Your task to perform on an android device: see creations saved in the google photos Image 0: 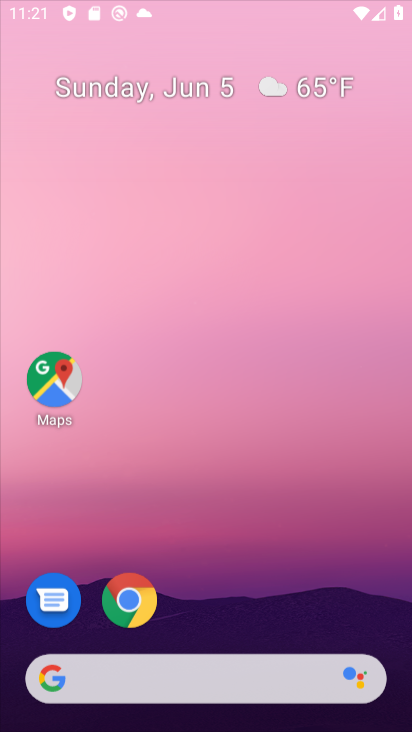
Step 0: click (149, 254)
Your task to perform on an android device: see creations saved in the google photos Image 1: 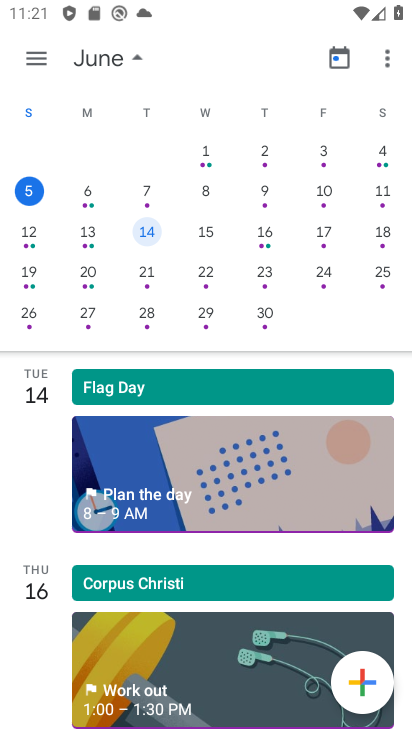
Step 1: press back button
Your task to perform on an android device: see creations saved in the google photos Image 2: 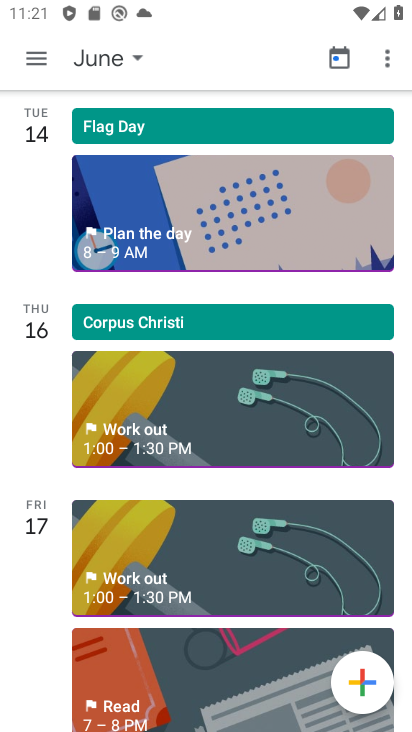
Step 2: press home button
Your task to perform on an android device: see creations saved in the google photos Image 3: 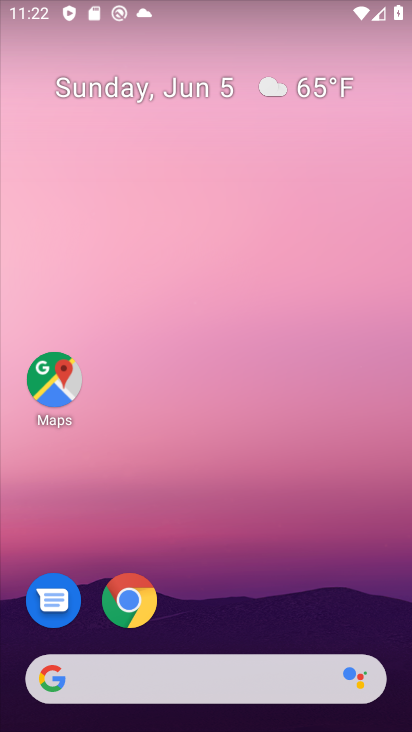
Step 3: drag from (302, 680) to (219, 165)
Your task to perform on an android device: see creations saved in the google photos Image 4: 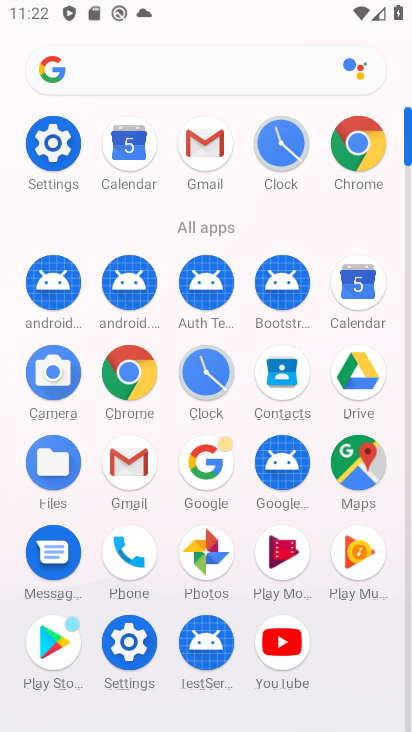
Step 4: click (203, 551)
Your task to perform on an android device: see creations saved in the google photos Image 5: 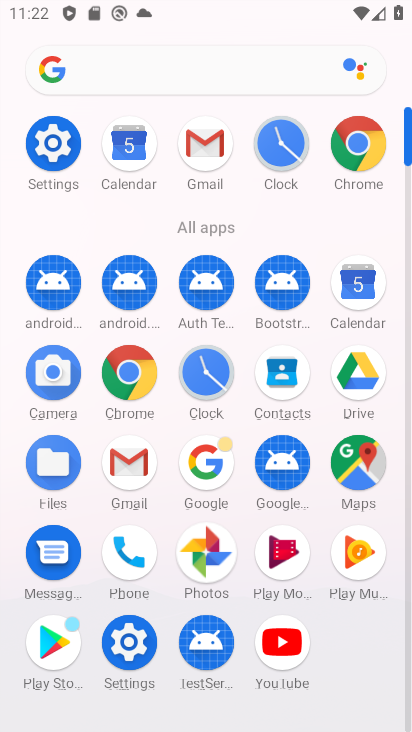
Step 5: click (203, 551)
Your task to perform on an android device: see creations saved in the google photos Image 6: 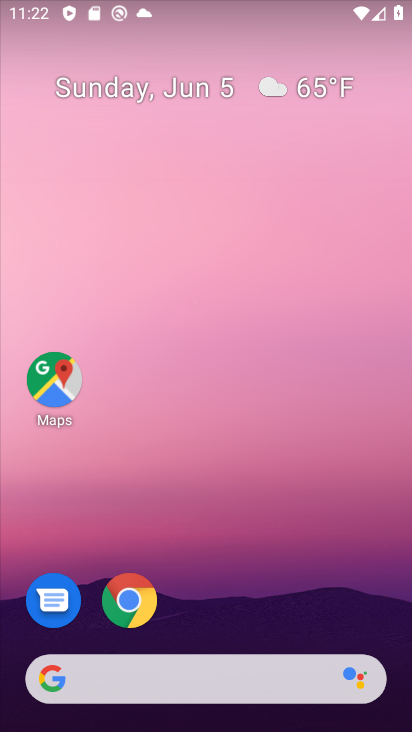
Step 6: drag from (310, 694) to (319, 65)
Your task to perform on an android device: see creations saved in the google photos Image 7: 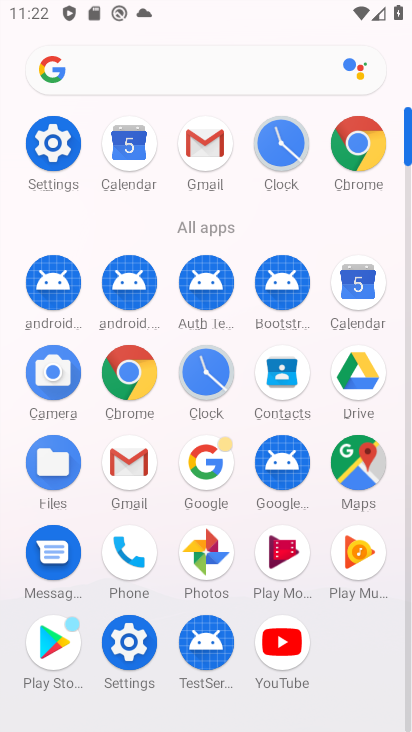
Step 7: click (202, 540)
Your task to perform on an android device: see creations saved in the google photos Image 8: 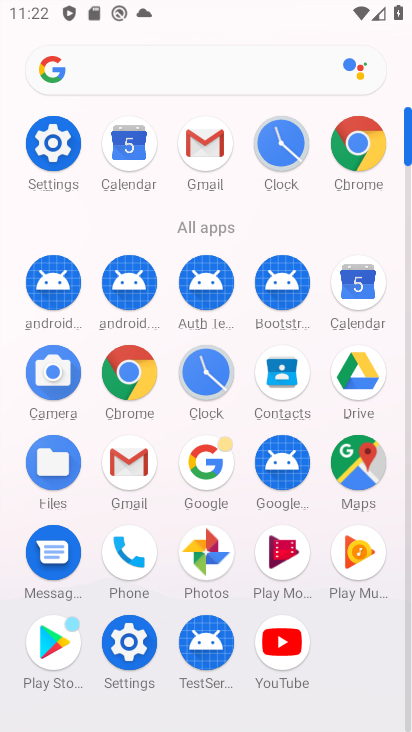
Step 8: click (201, 541)
Your task to perform on an android device: see creations saved in the google photos Image 9: 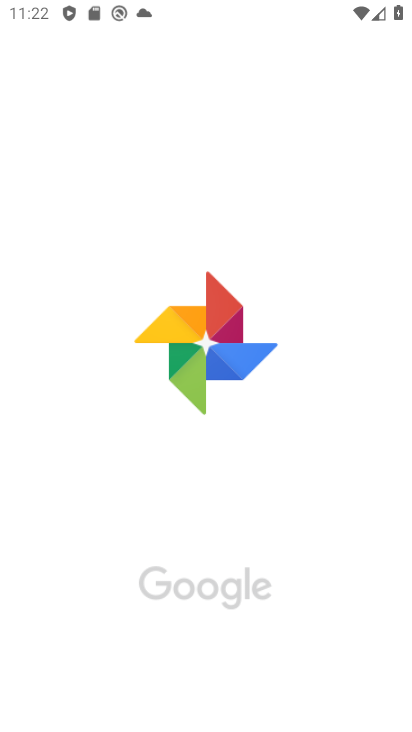
Step 9: drag from (209, 541) to (222, 495)
Your task to perform on an android device: see creations saved in the google photos Image 10: 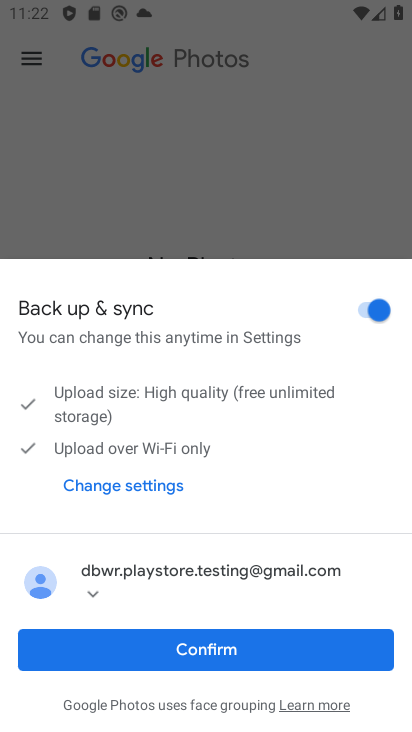
Step 10: click (232, 651)
Your task to perform on an android device: see creations saved in the google photos Image 11: 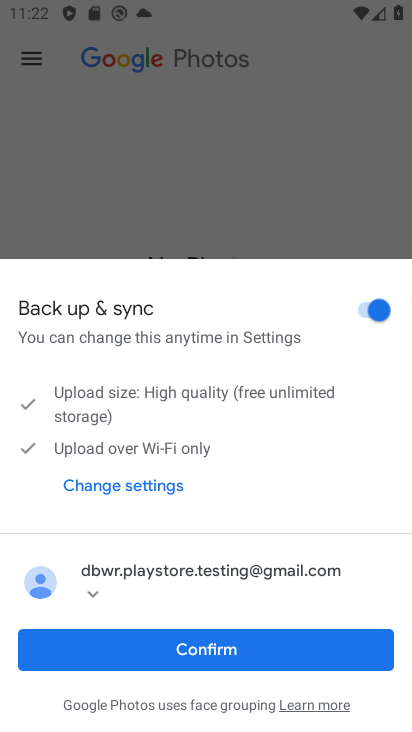
Step 11: click (234, 650)
Your task to perform on an android device: see creations saved in the google photos Image 12: 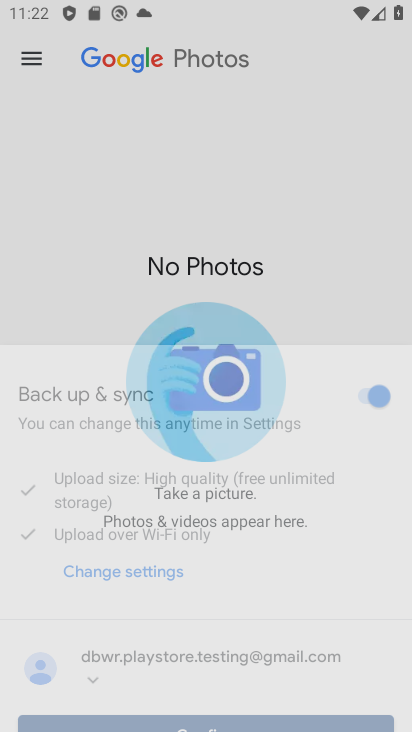
Step 12: click (234, 650)
Your task to perform on an android device: see creations saved in the google photos Image 13: 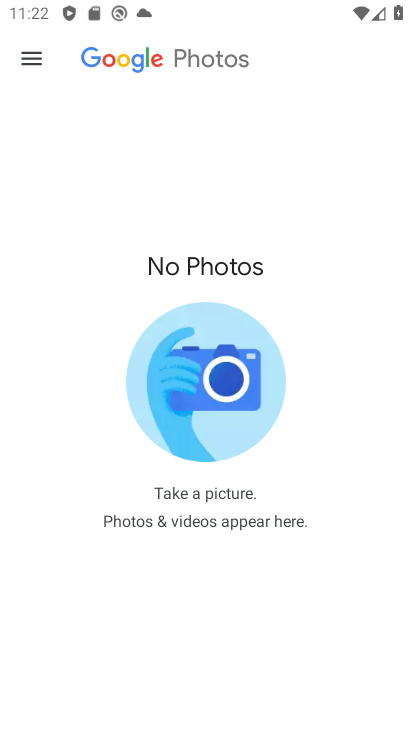
Step 13: click (234, 650)
Your task to perform on an android device: see creations saved in the google photos Image 14: 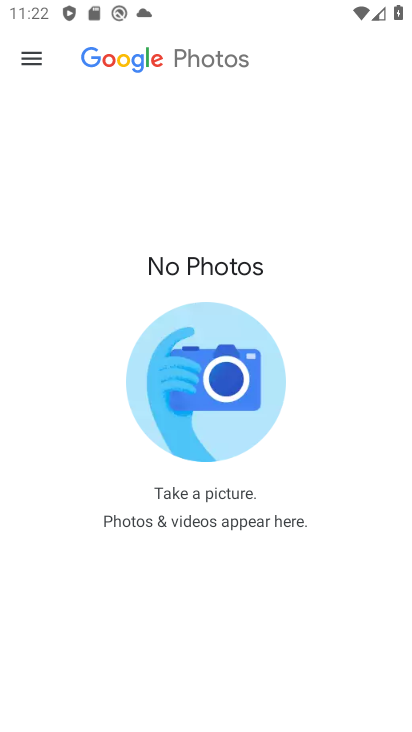
Step 14: click (239, 642)
Your task to perform on an android device: see creations saved in the google photos Image 15: 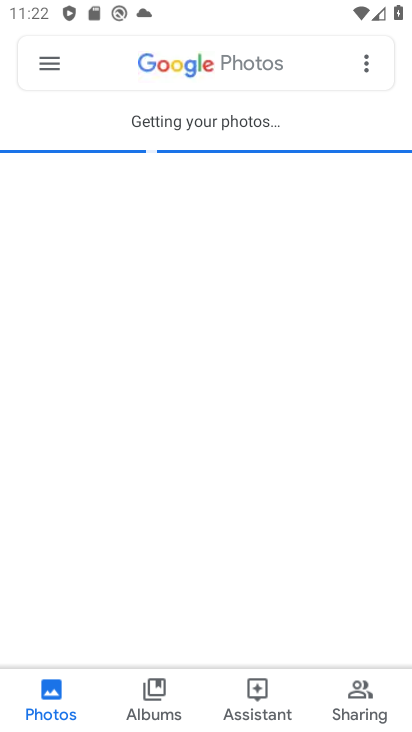
Step 15: click (37, 61)
Your task to perform on an android device: see creations saved in the google photos Image 16: 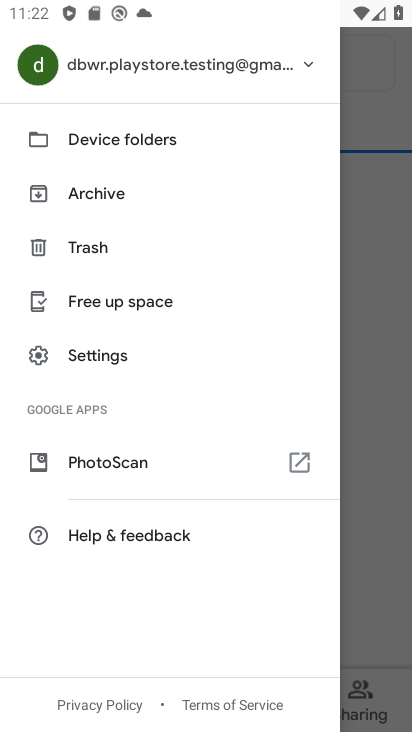
Step 16: click (191, 499)
Your task to perform on an android device: see creations saved in the google photos Image 17: 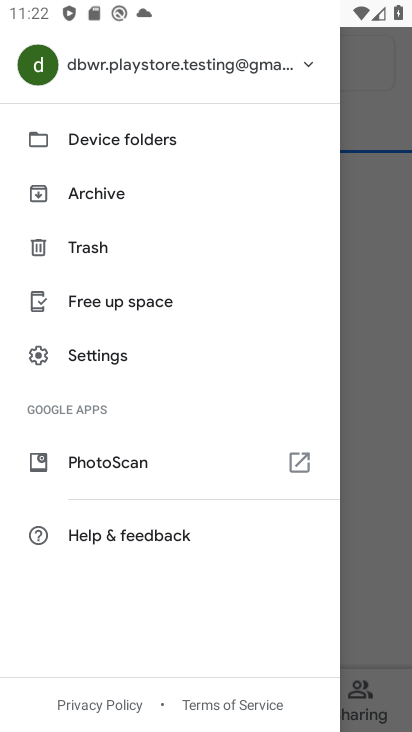
Step 17: click (192, 585)
Your task to perform on an android device: see creations saved in the google photos Image 18: 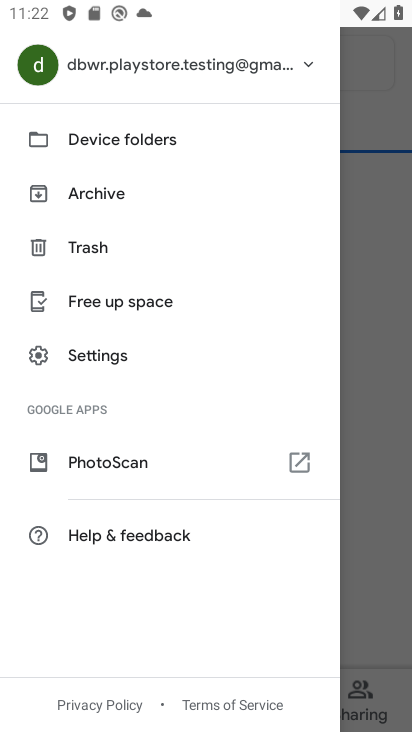
Step 18: task complete